Your task to perform on an android device: turn on the 12-hour format for clock Image 0: 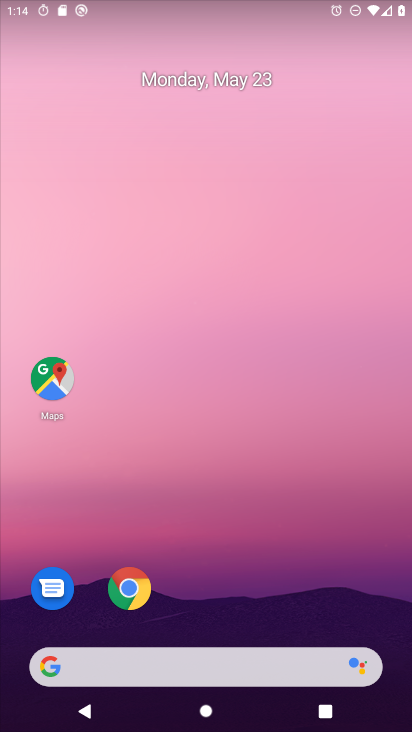
Step 0: drag from (248, 681) to (214, 146)
Your task to perform on an android device: turn on the 12-hour format for clock Image 1: 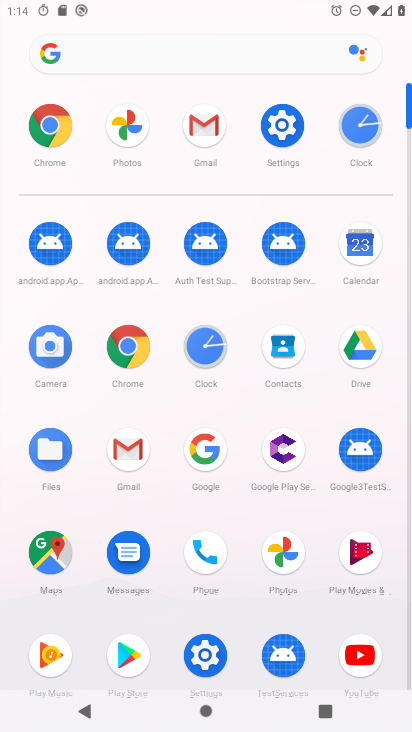
Step 1: click (203, 348)
Your task to perform on an android device: turn on the 12-hour format for clock Image 2: 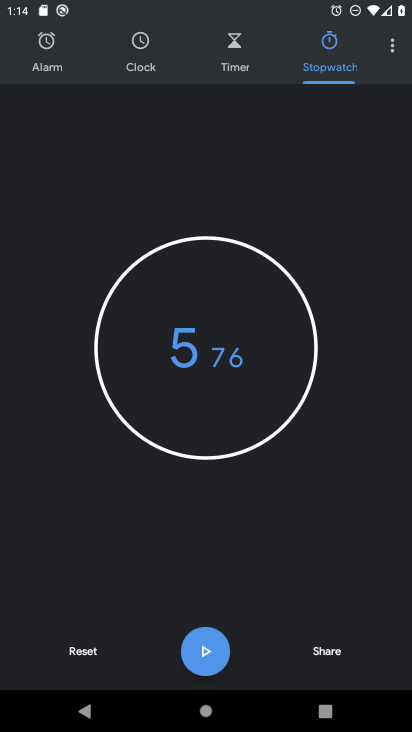
Step 2: click (399, 68)
Your task to perform on an android device: turn on the 12-hour format for clock Image 3: 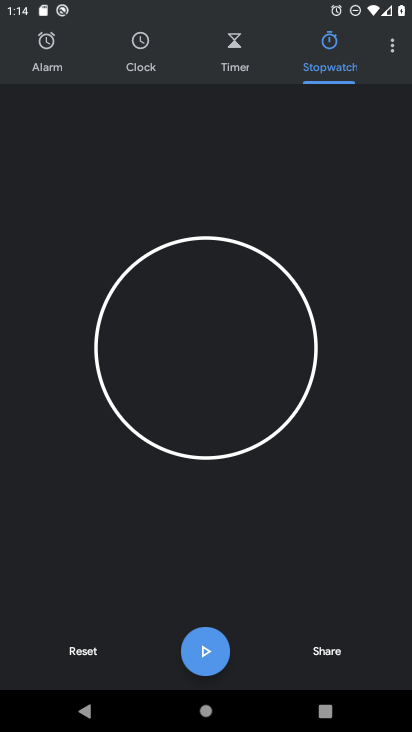
Step 3: click (390, 55)
Your task to perform on an android device: turn on the 12-hour format for clock Image 4: 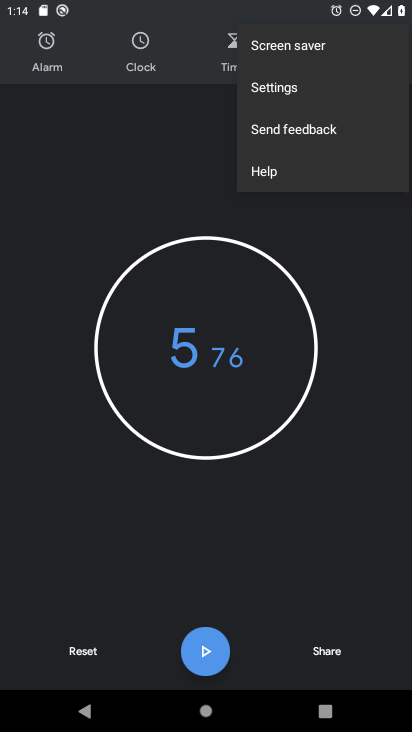
Step 4: click (293, 86)
Your task to perform on an android device: turn on the 12-hour format for clock Image 5: 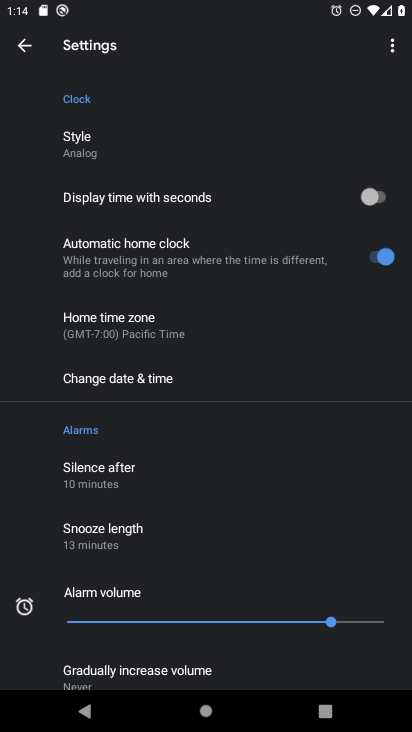
Step 5: drag from (177, 672) to (214, 390)
Your task to perform on an android device: turn on the 12-hour format for clock Image 6: 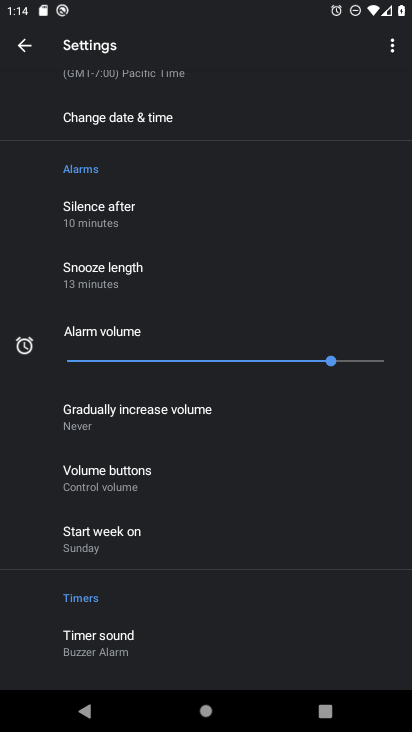
Step 6: click (141, 132)
Your task to perform on an android device: turn on the 12-hour format for clock Image 7: 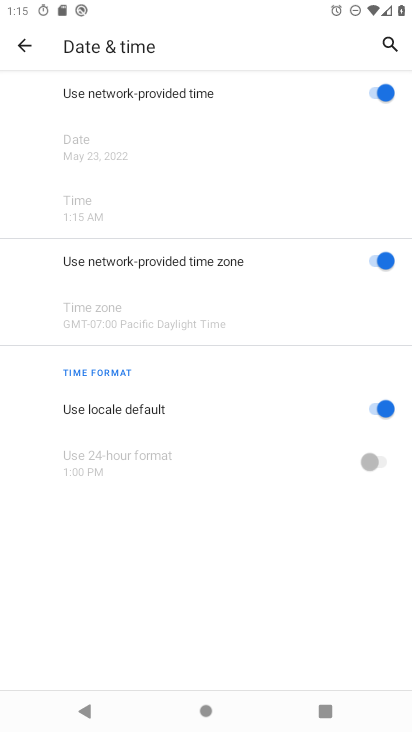
Step 7: click (368, 456)
Your task to perform on an android device: turn on the 12-hour format for clock Image 8: 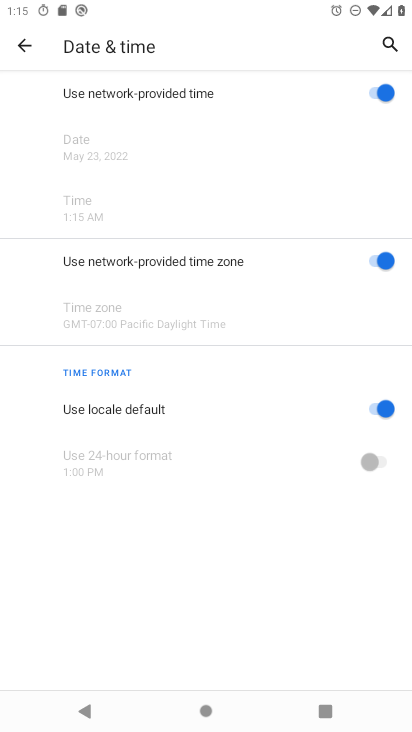
Step 8: click (371, 459)
Your task to perform on an android device: turn on the 12-hour format for clock Image 9: 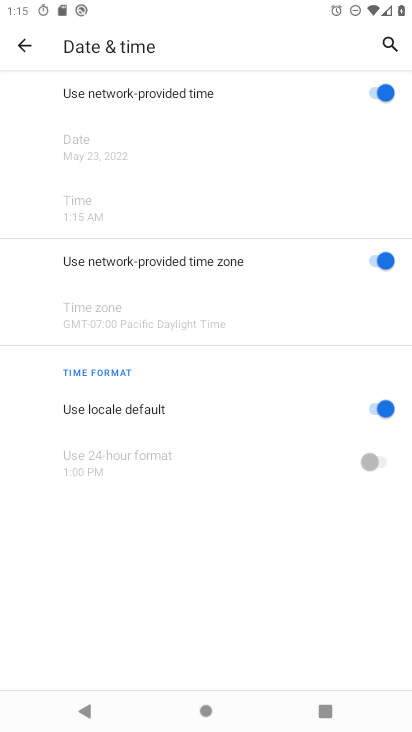
Step 9: click (375, 417)
Your task to perform on an android device: turn on the 12-hour format for clock Image 10: 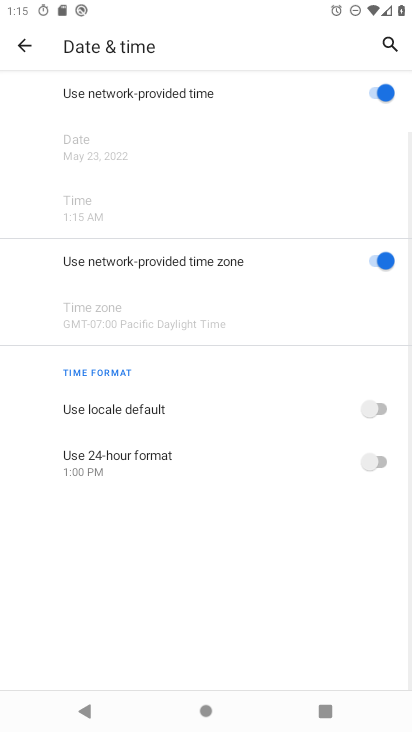
Step 10: click (380, 465)
Your task to perform on an android device: turn on the 12-hour format for clock Image 11: 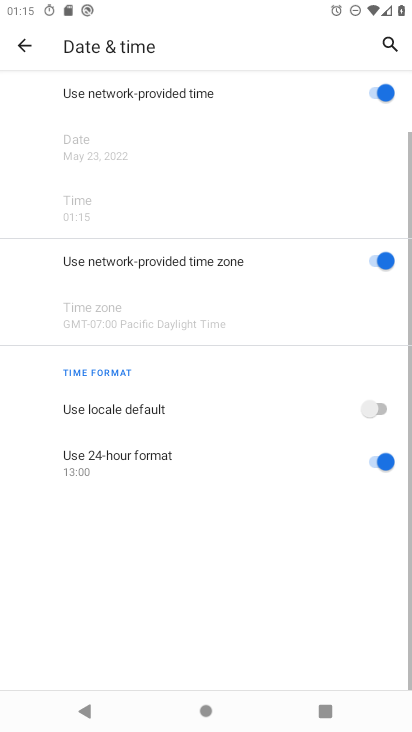
Step 11: click (380, 463)
Your task to perform on an android device: turn on the 12-hour format for clock Image 12: 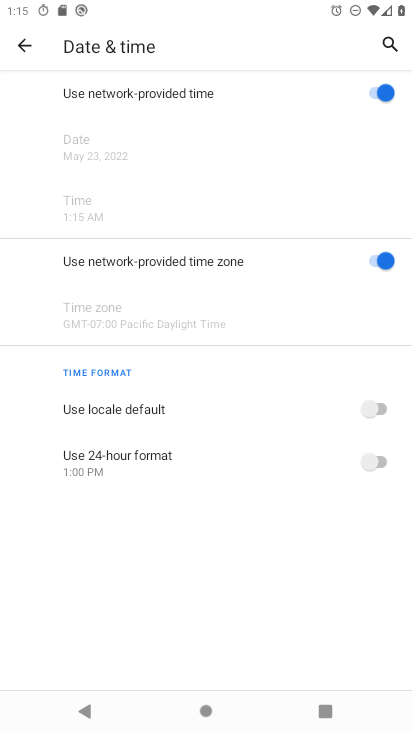
Step 12: task complete